Your task to perform on an android device: Check the news Image 0: 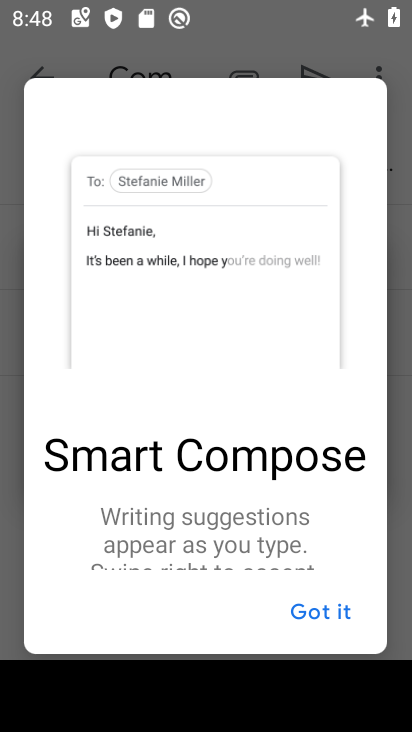
Step 0: press home button
Your task to perform on an android device: Check the news Image 1: 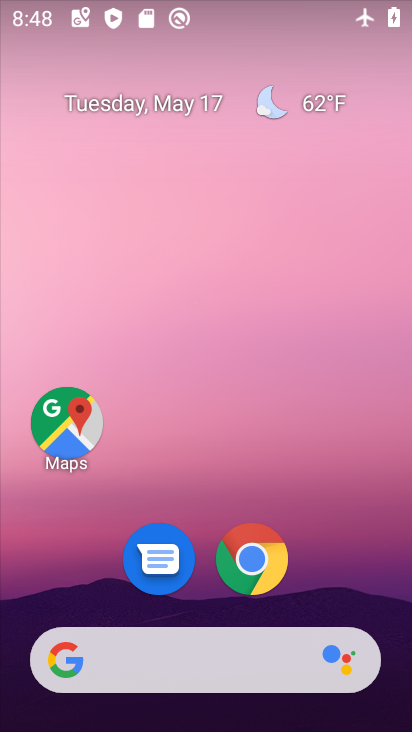
Step 1: drag from (25, 324) to (300, 334)
Your task to perform on an android device: Check the news Image 2: 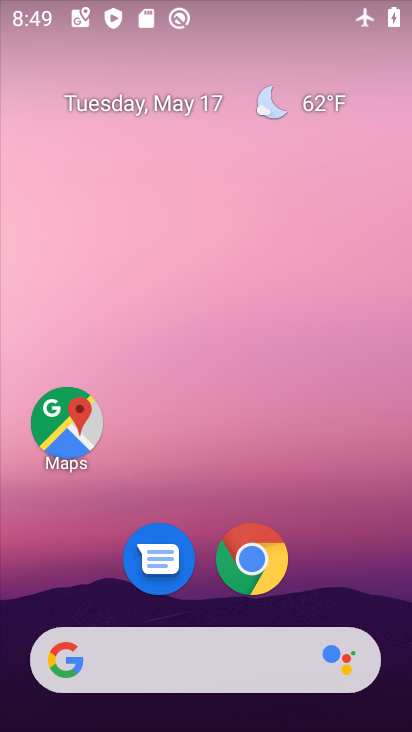
Step 2: drag from (17, 286) to (362, 275)
Your task to perform on an android device: Check the news Image 3: 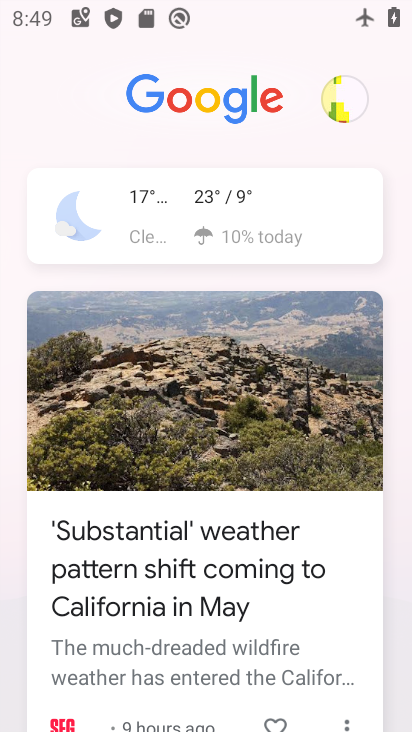
Step 3: click (362, 275)
Your task to perform on an android device: Check the news Image 4: 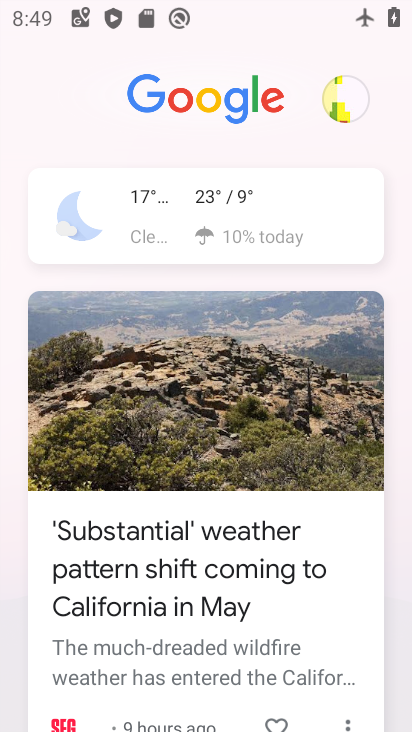
Step 4: task complete